Your task to perform on an android device: Turn on the flashlight Image 0: 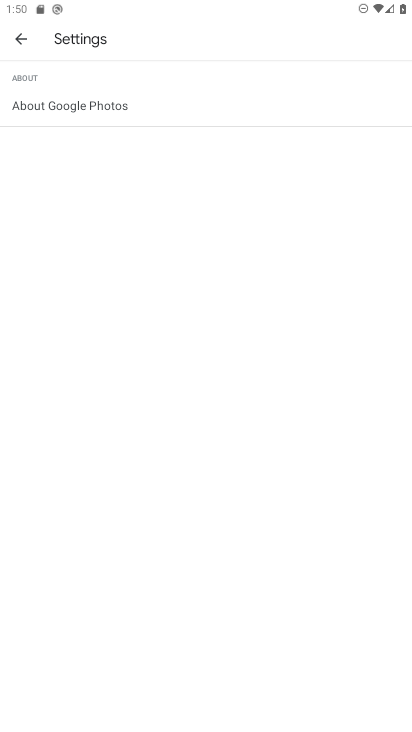
Step 0: press home button
Your task to perform on an android device: Turn on the flashlight Image 1: 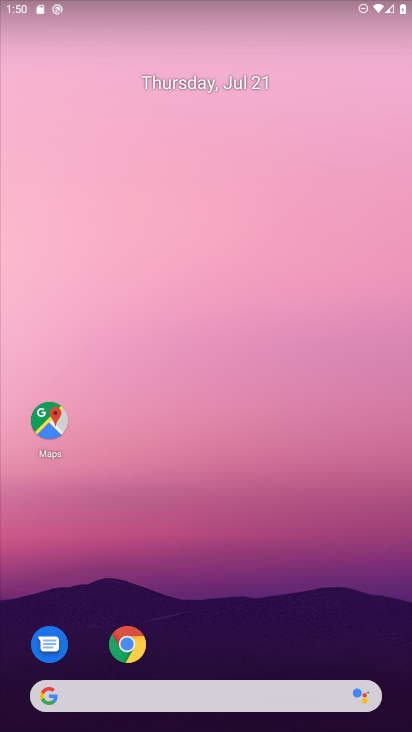
Step 1: drag from (240, 600) to (228, 31)
Your task to perform on an android device: Turn on the flashlight Image 2: 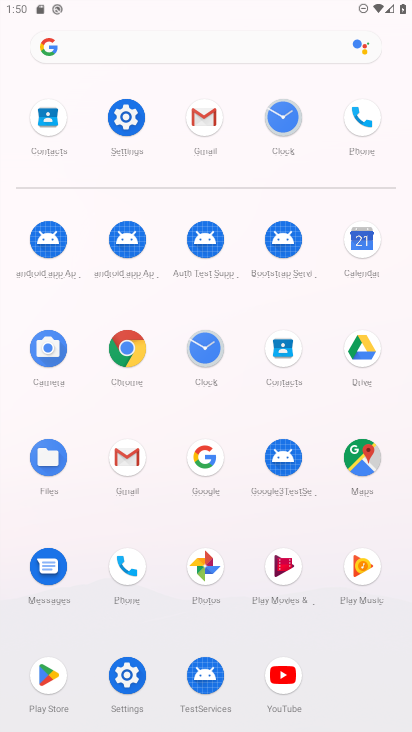
Step 2: click (128, 108)
Your task to perform on an android device: Turn on the flashlight Image 3: 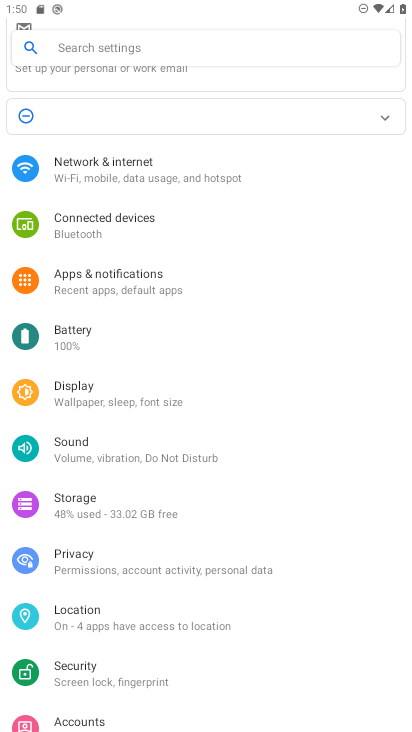
Step 3: task complete